Your task to perform on an android device: open app "Chime – Mobile Banking" Image 0: 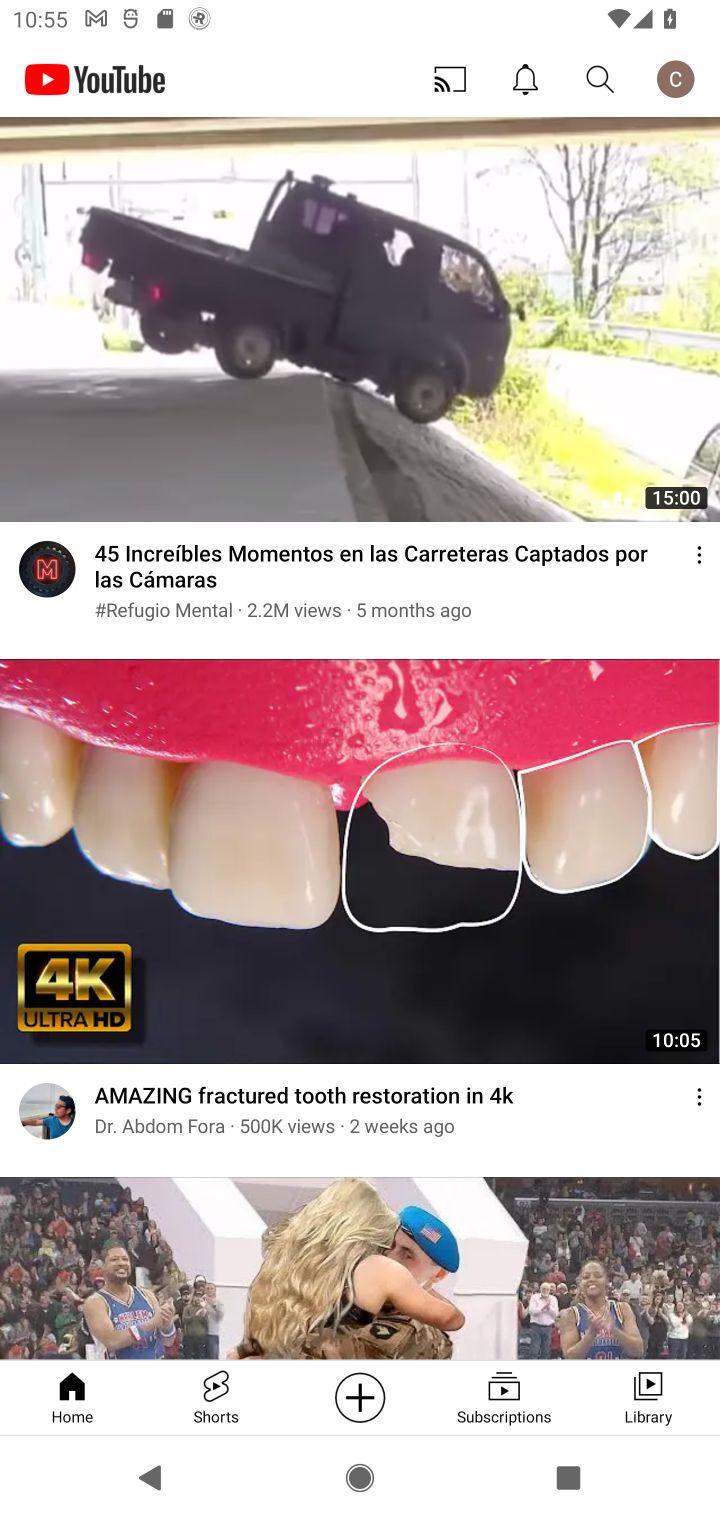
Step 0: press home button
Your task to perform on an android device: open app "Chime – Mobile Banking" Image 1: 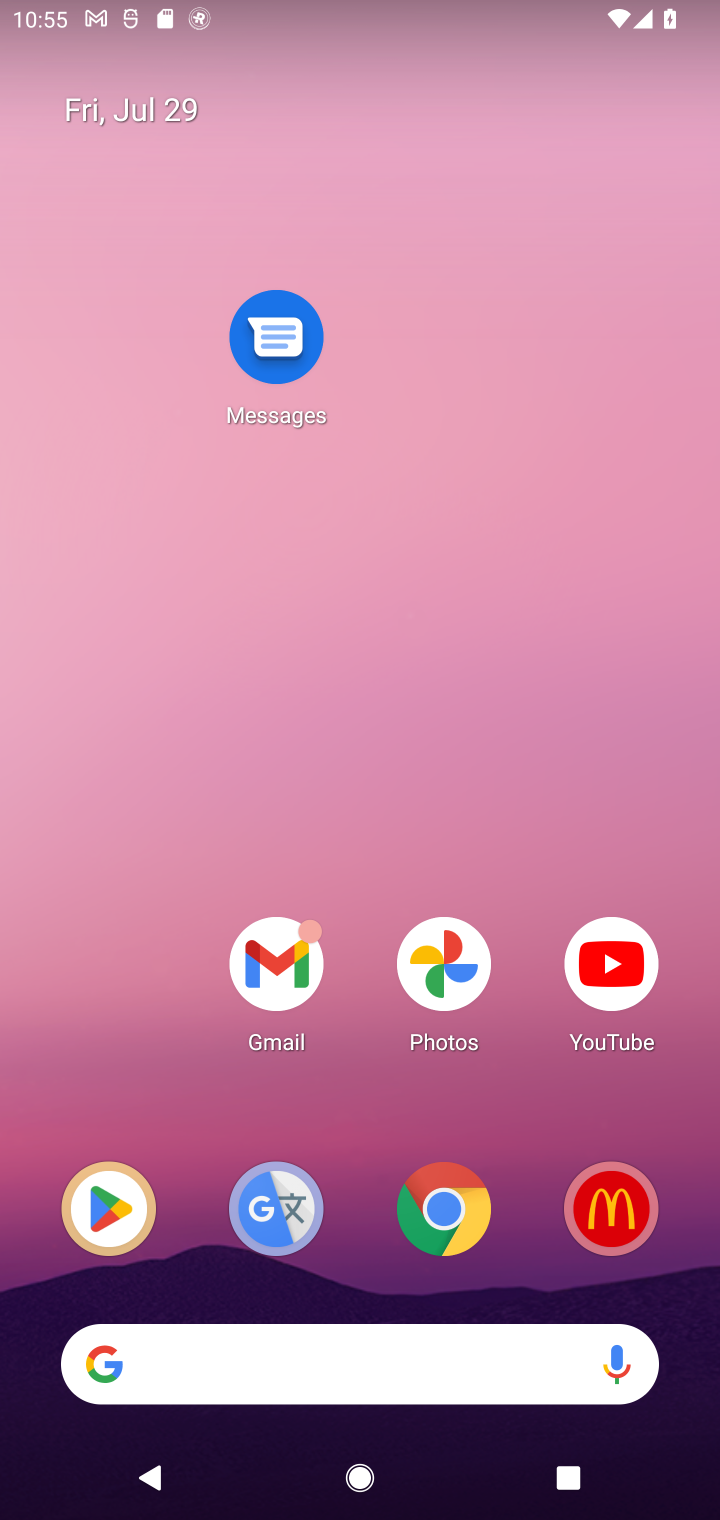
Step 1: drag from (293, 1366) to (380, 127)
Your task to perform on an android device: open app "Chime – Mobile Banking" Image 2: 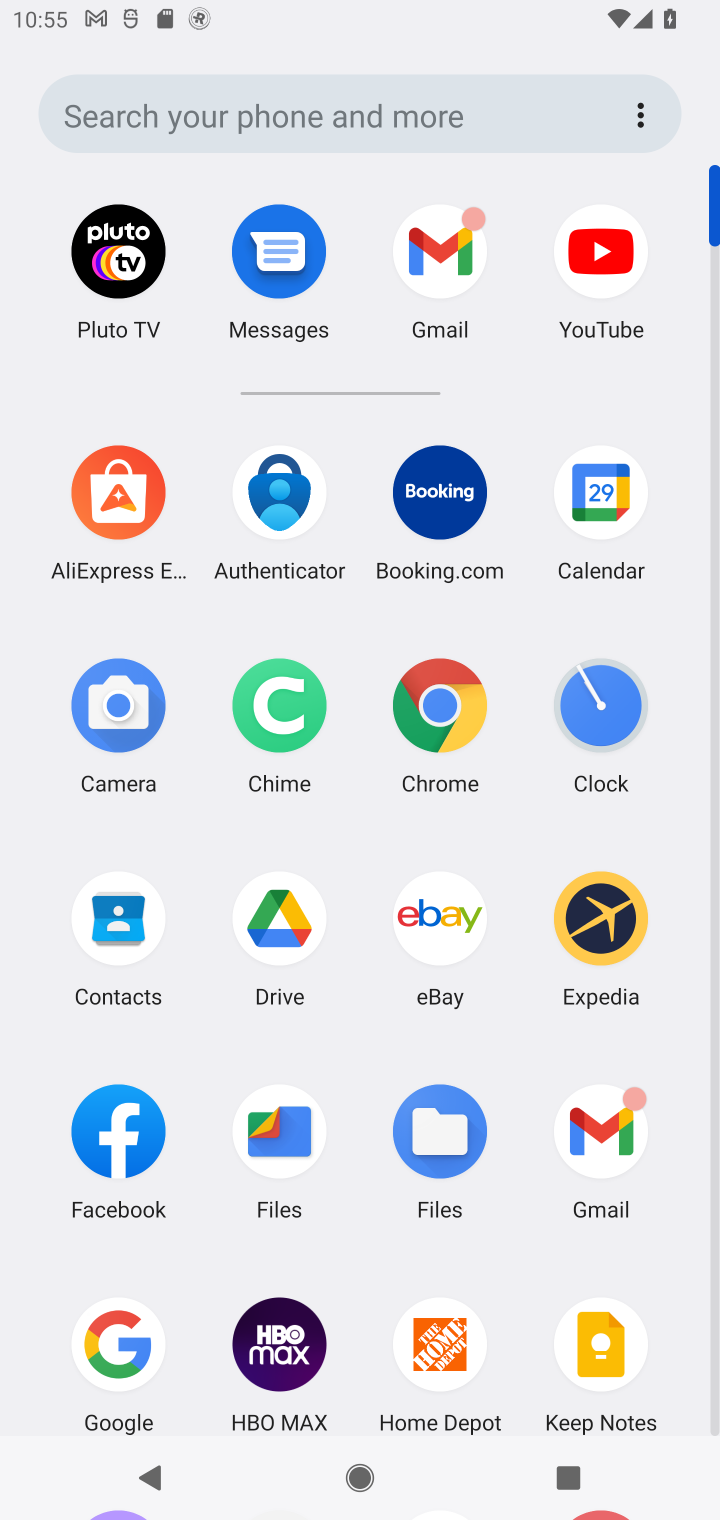
Step 2: drag from (398, 1245) to (262, 494)
Your task to perform on an android device: open app "Chime – Mobile Banking" Image 3: 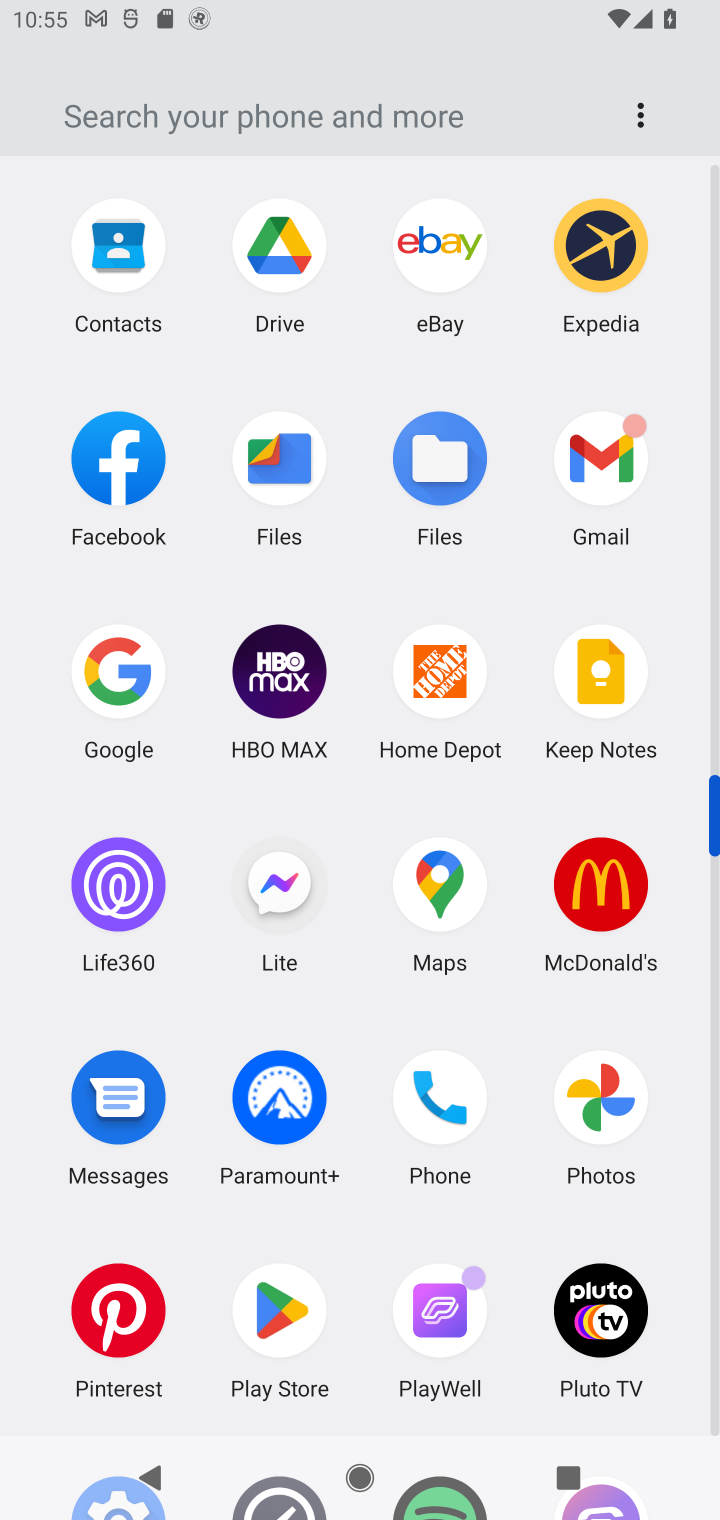
Step 3: drag from (335, 1198) to (329, 558)
Your task to perform on an android device: open app "Chime – Mobile Banking" Image 4: 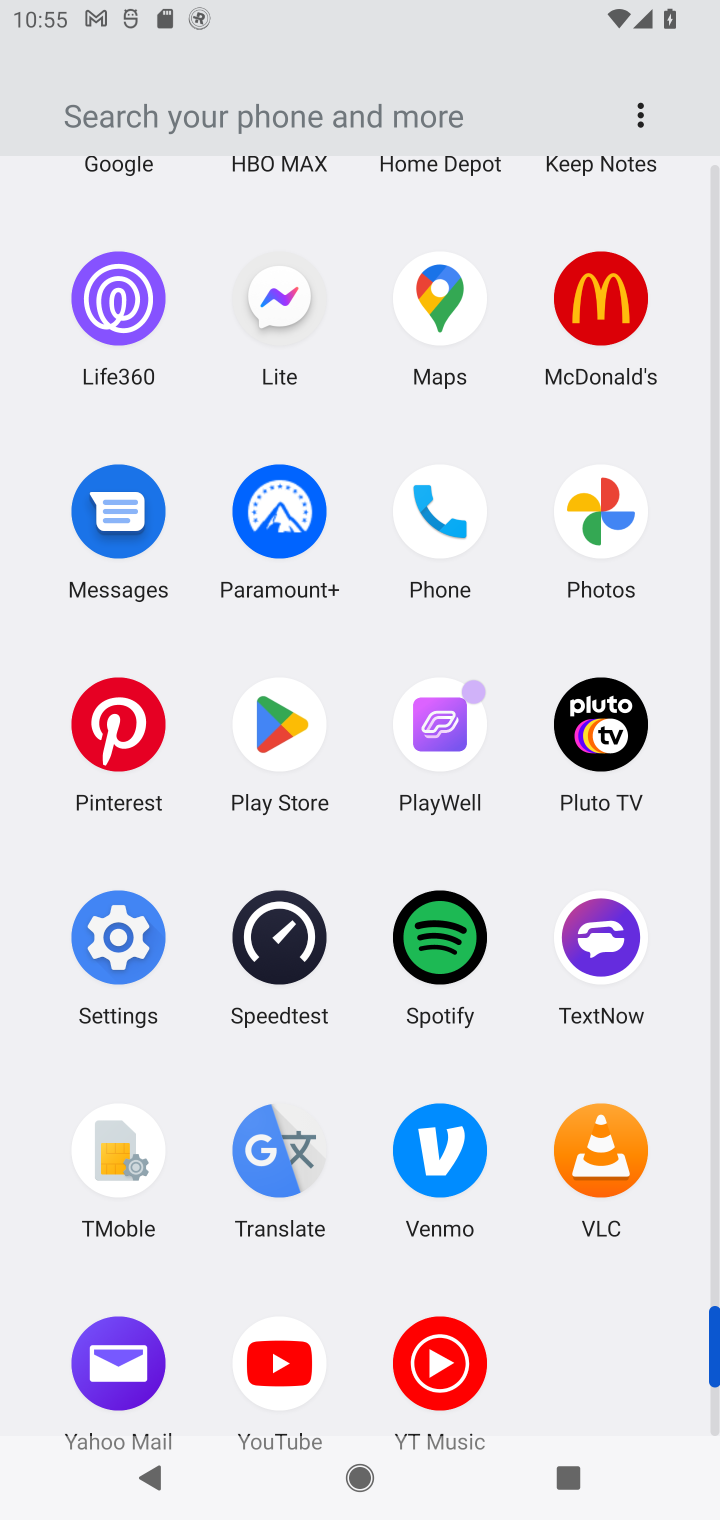
Step 4: click (288, 724)
Your task to perform on an android device: open app "Chime – Mobile Banking" Image 5: 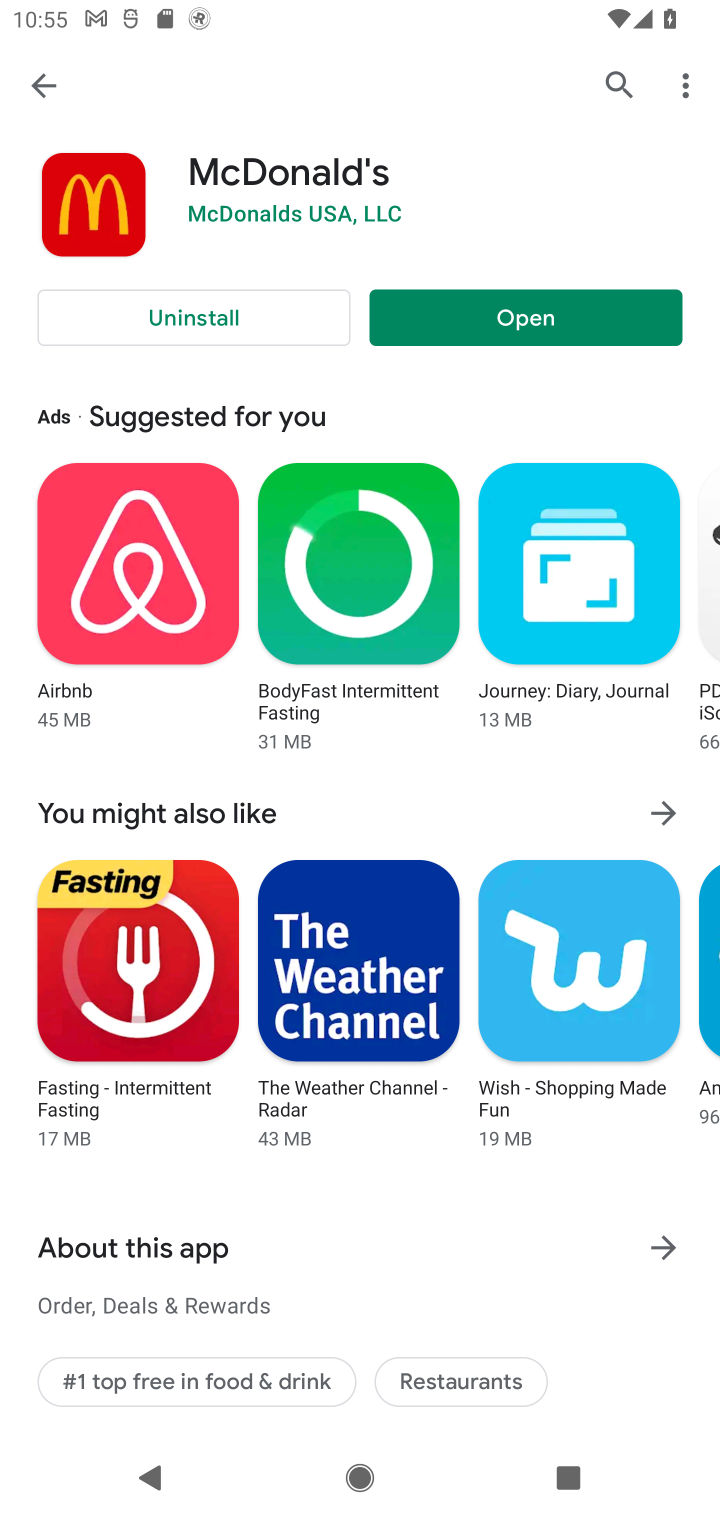
Step 5: click (620, 78)
Your task to perform on an android device: open app "Chime – Mobile Banking" Image 6: 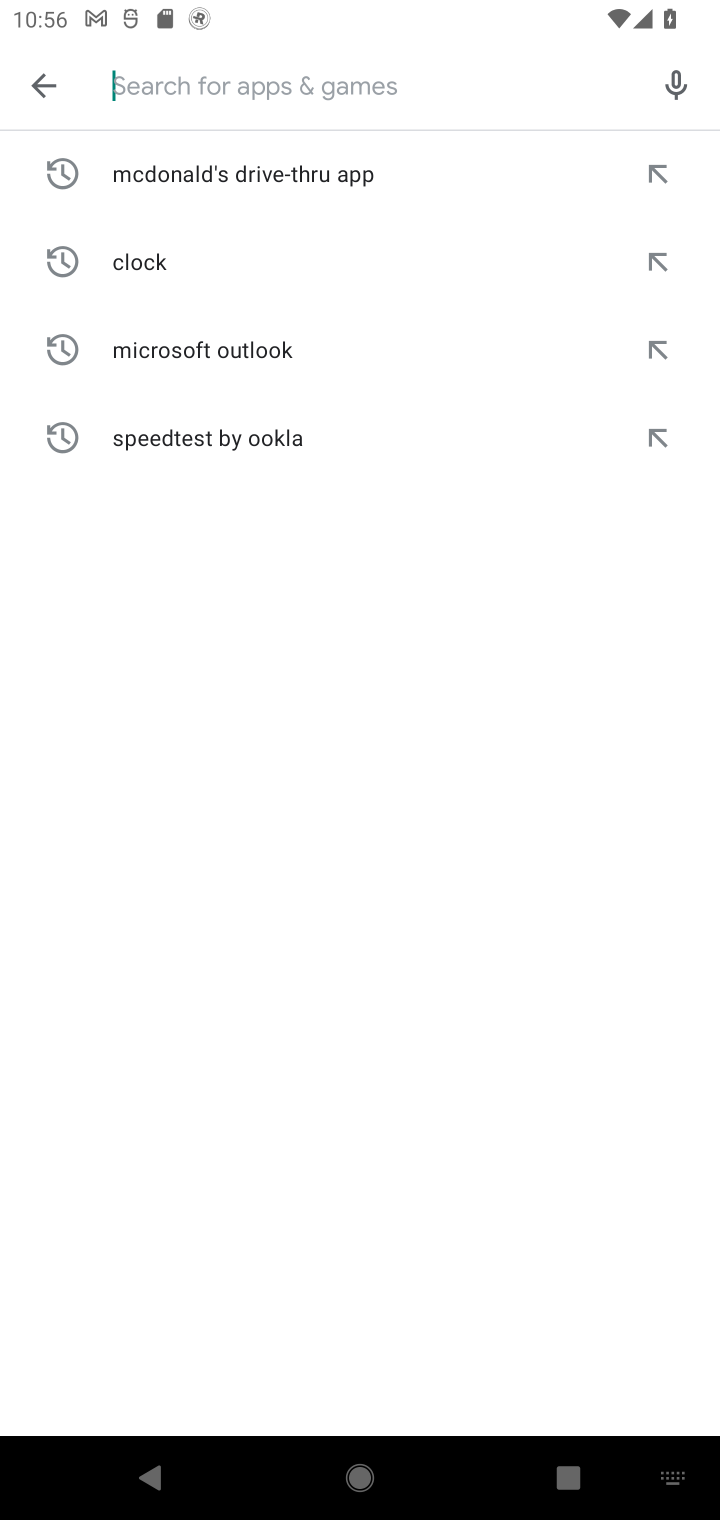
Step 6: type "Chime - Mobile Banking"
Your task to perform on an android device: open app "Chime – Mobile Banking" Image 7: 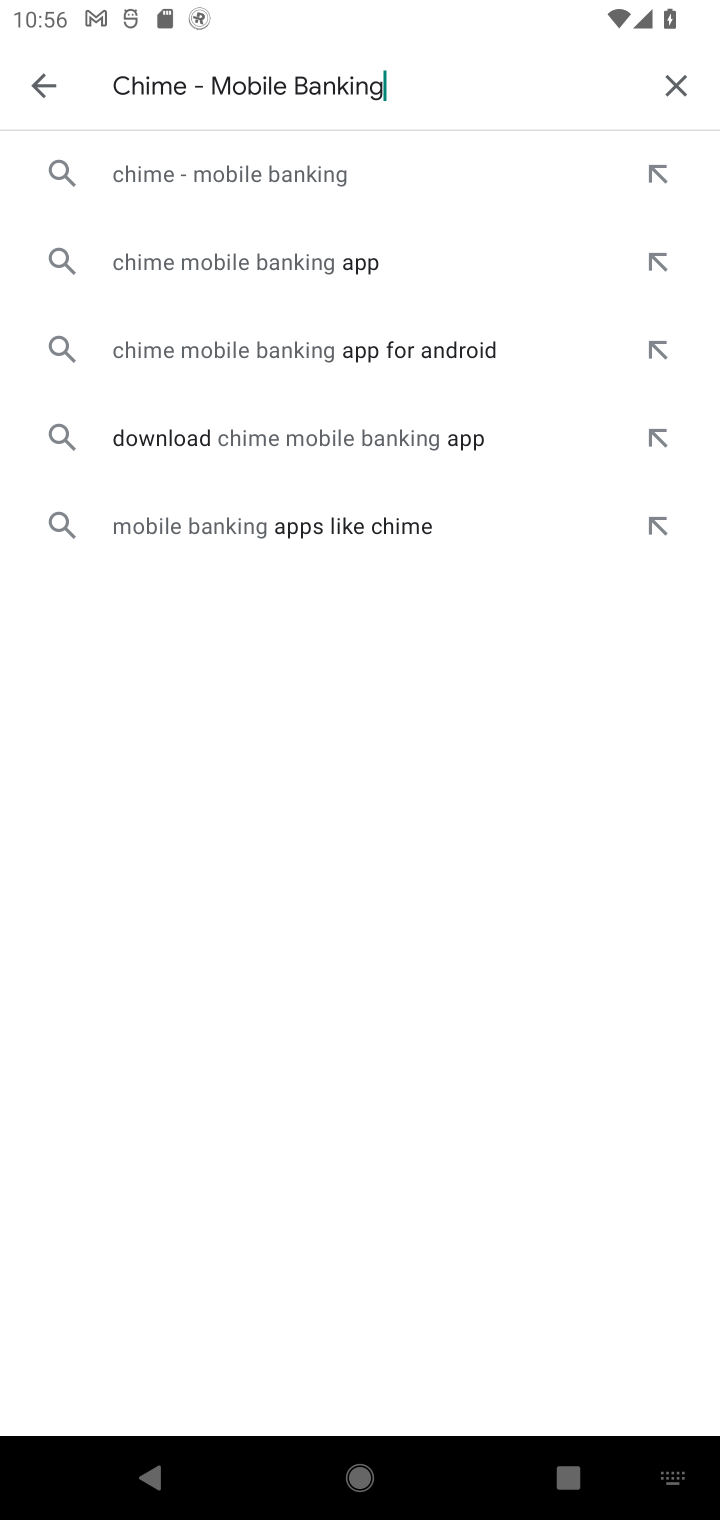
Step 7: click (217, 195)
Your task to perform on an android device: open app "Chime – Mobile Banking" Image 8: 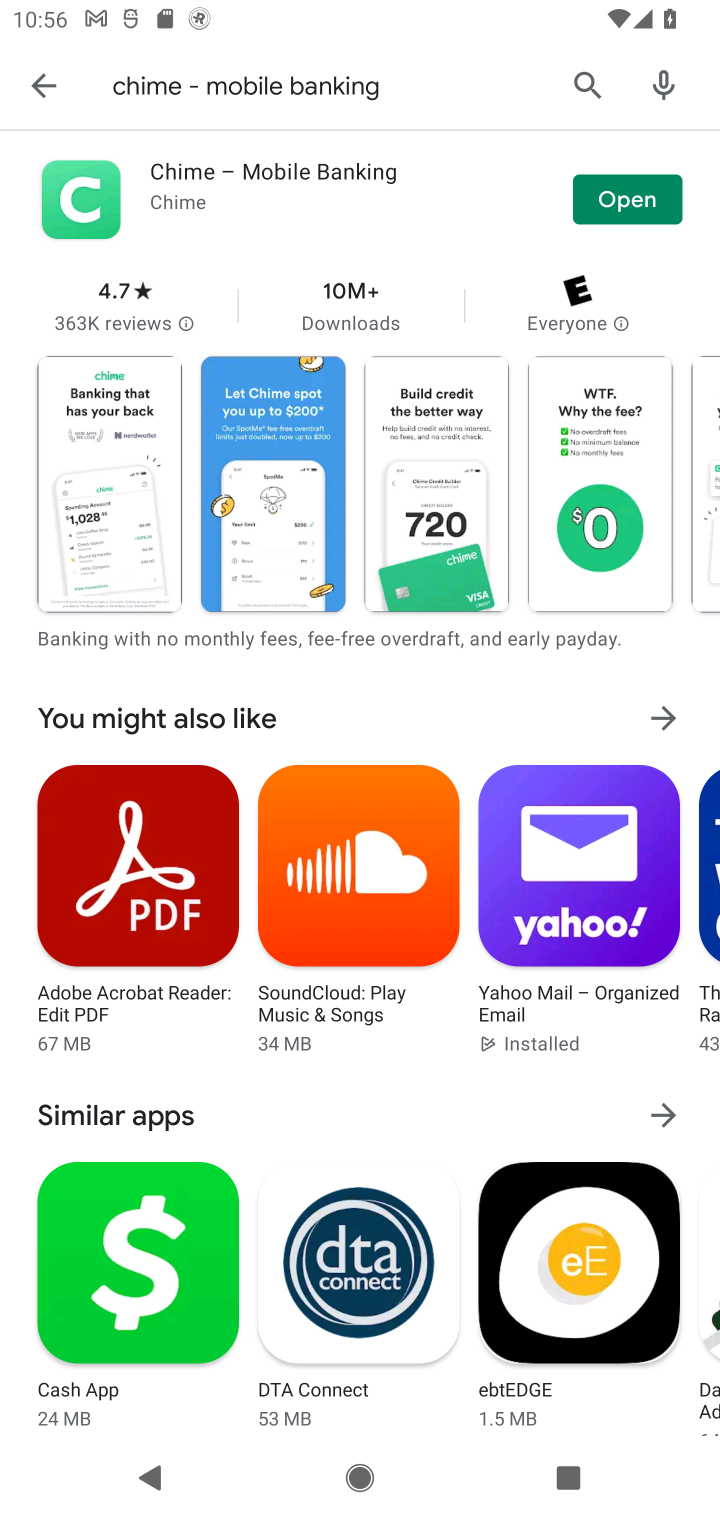
Step 8: click (644, 211)
Your task to perform on an android device: open app "Chime – Mobile Banking" Image 9: 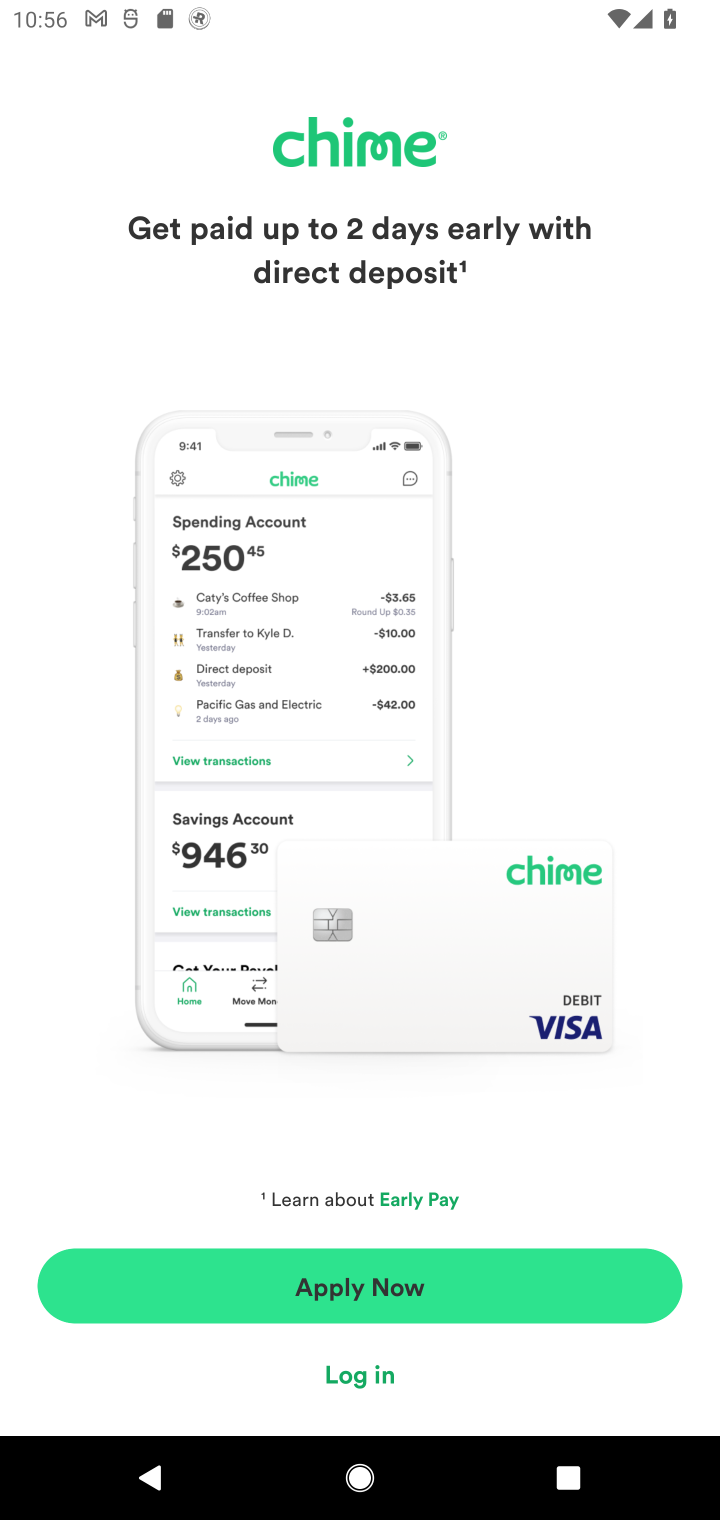
Step 9: task complete